Your task to perform on an android device: What's the news in theFalkland Islands? Image 0: 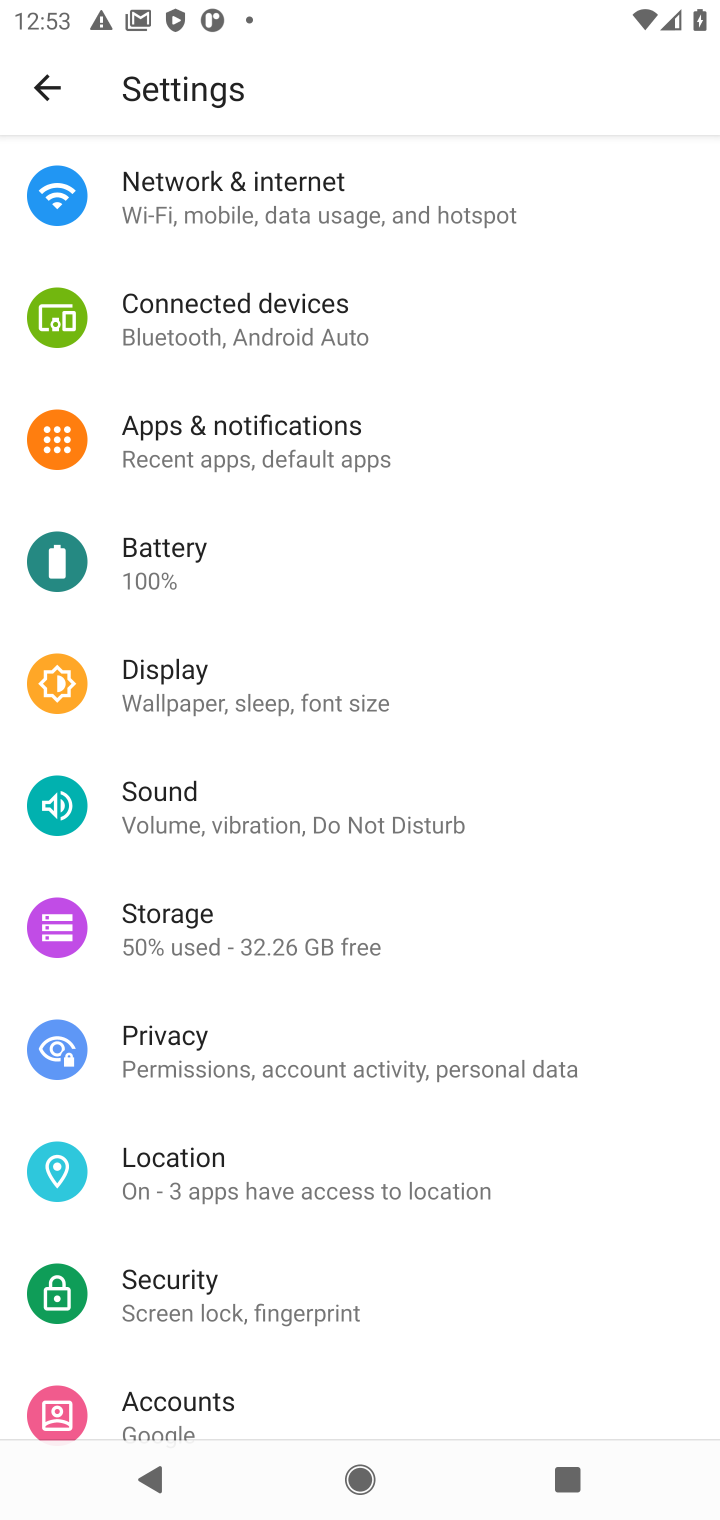
Step 0: press home button
Your task to perform on an android device: What's the news in theFalkland Islands? Image 1: 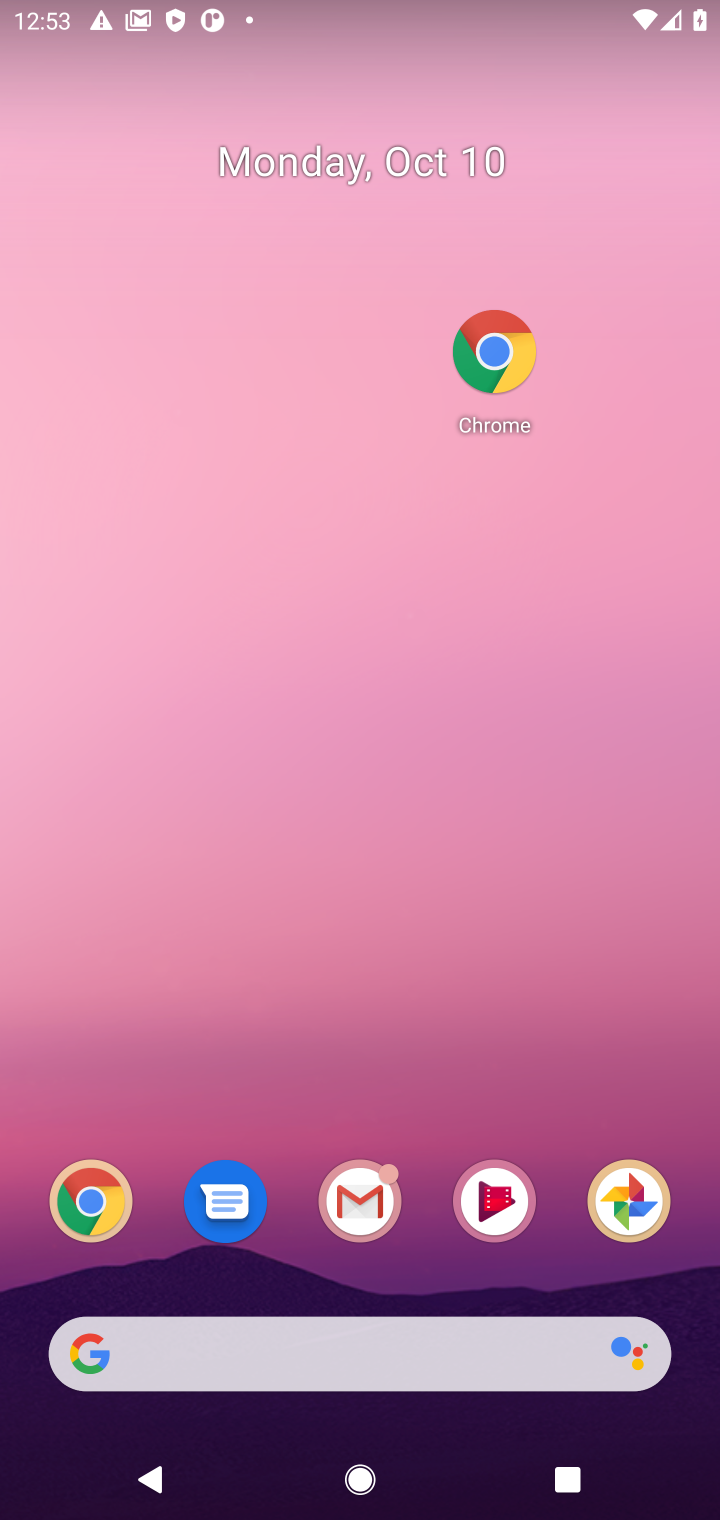
Step 1: click (489, 362)
Your task to perform on an android device: What's the news in theFalkland Islands? Image 2: 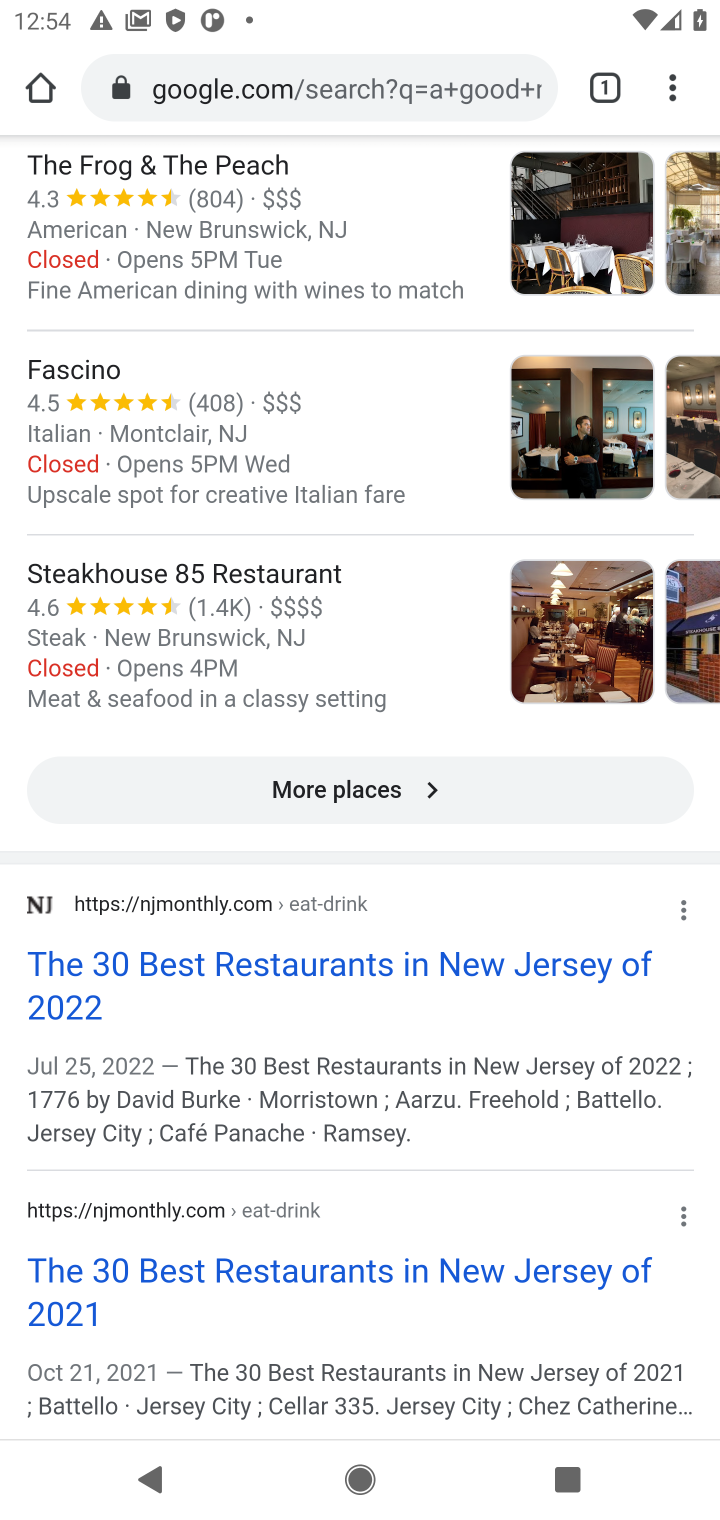
Step 2: click (339, 87)
Your task to perform on an android device: What's the news in theFalkland Islands? Image 3: 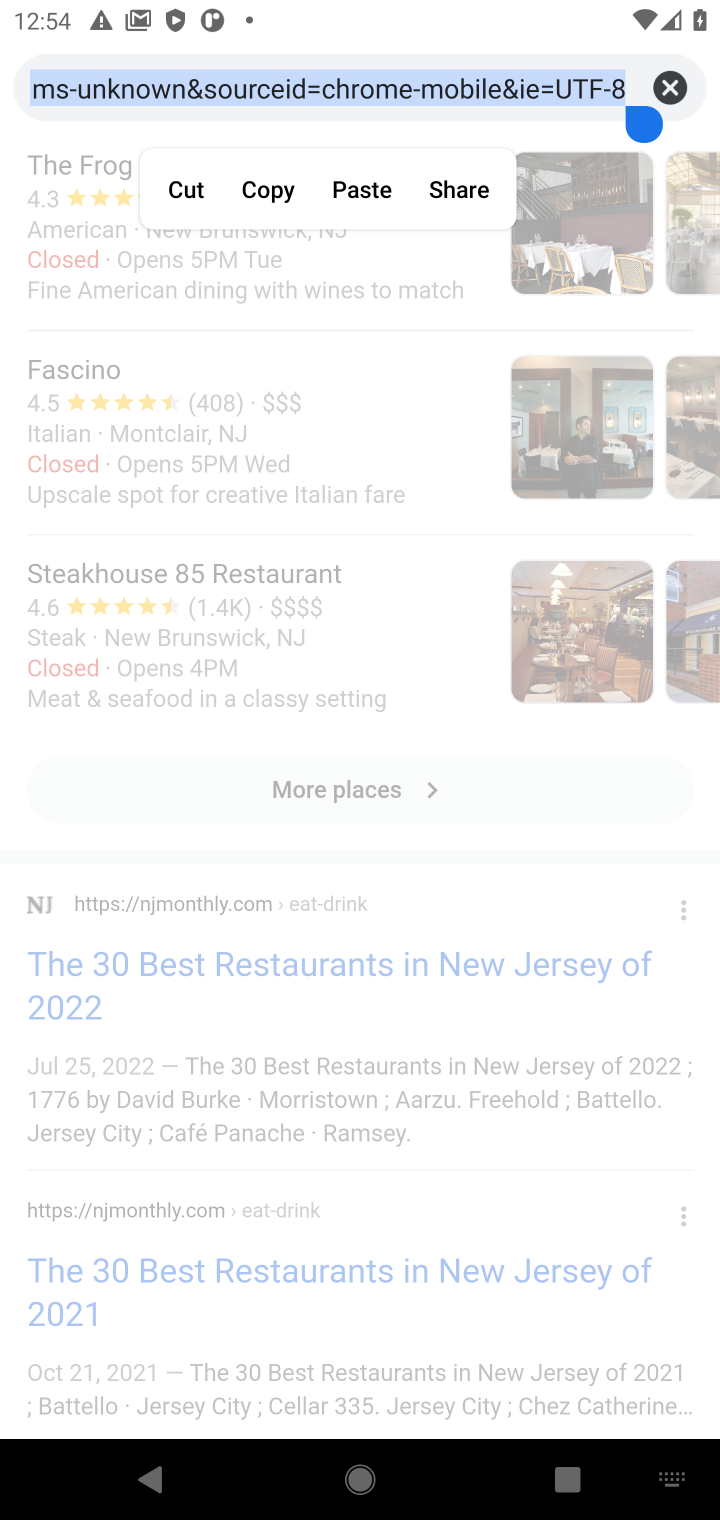
Step 3: click (658, 94)
Your task to perform on an android device: What's the news in theFalkland Islands? Image 4: 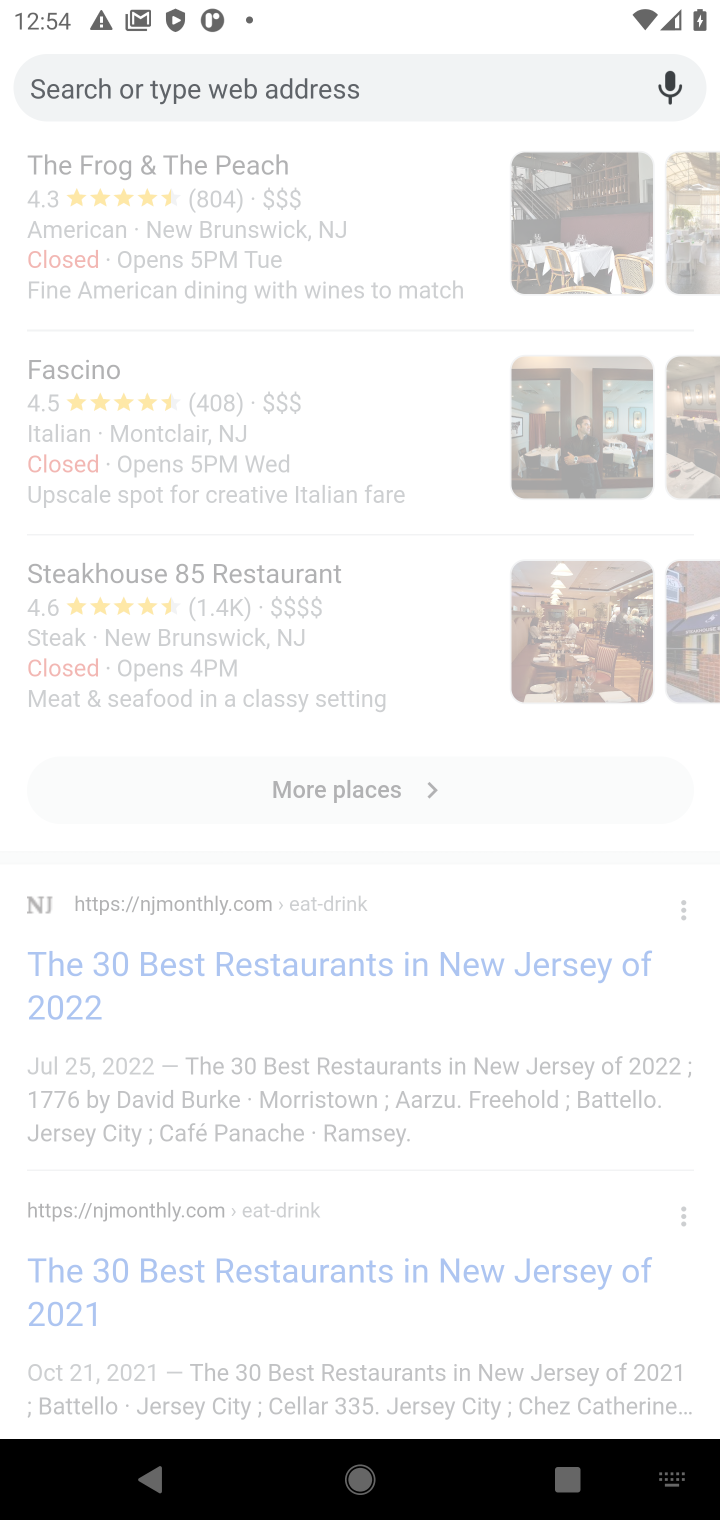
Step 4: type "What's the news in theFalkland Islands?"
Your task to perform on an android device: What's the news in theFalkland Islands? Image 5: 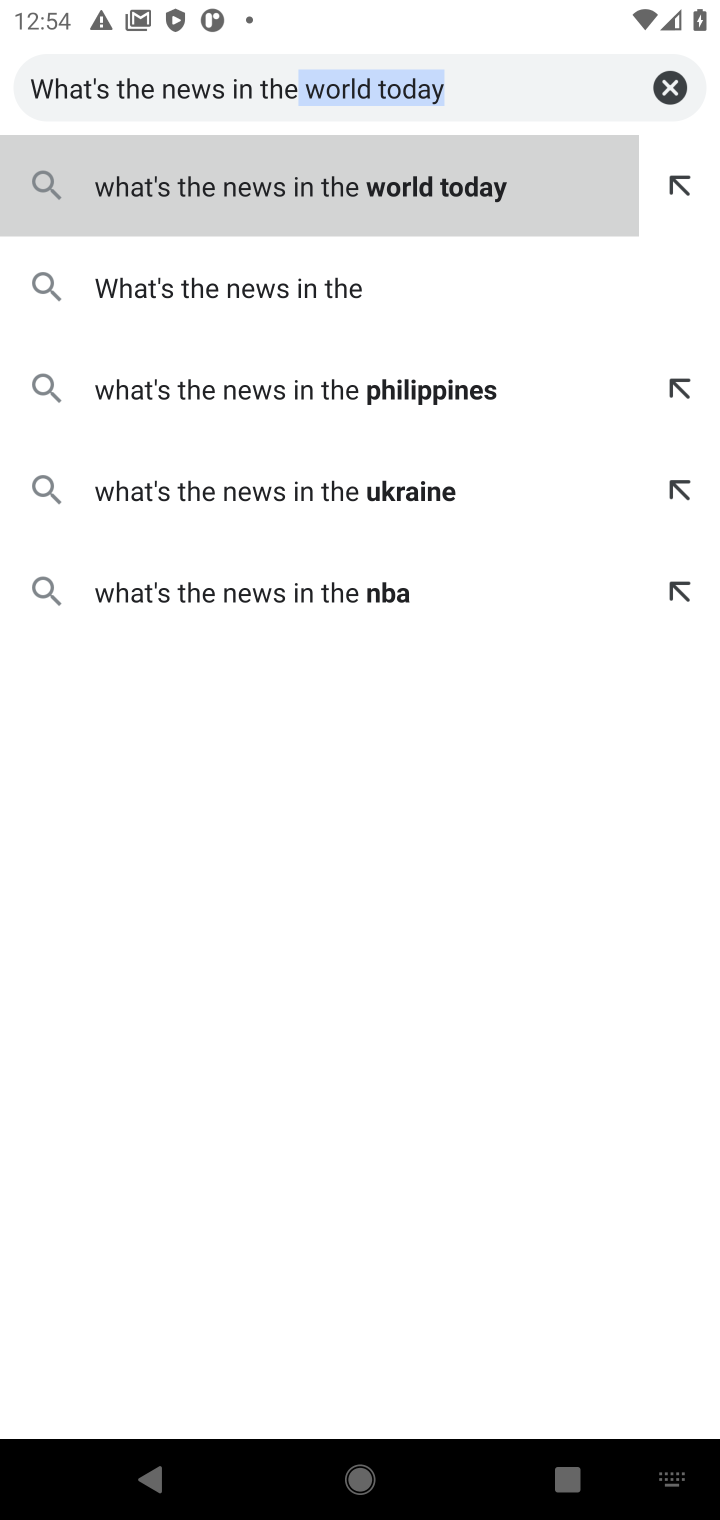
Step 5: click (295, 90)
Your task to perform on an android device: What's the news in theFalkland Islands? Image 6: 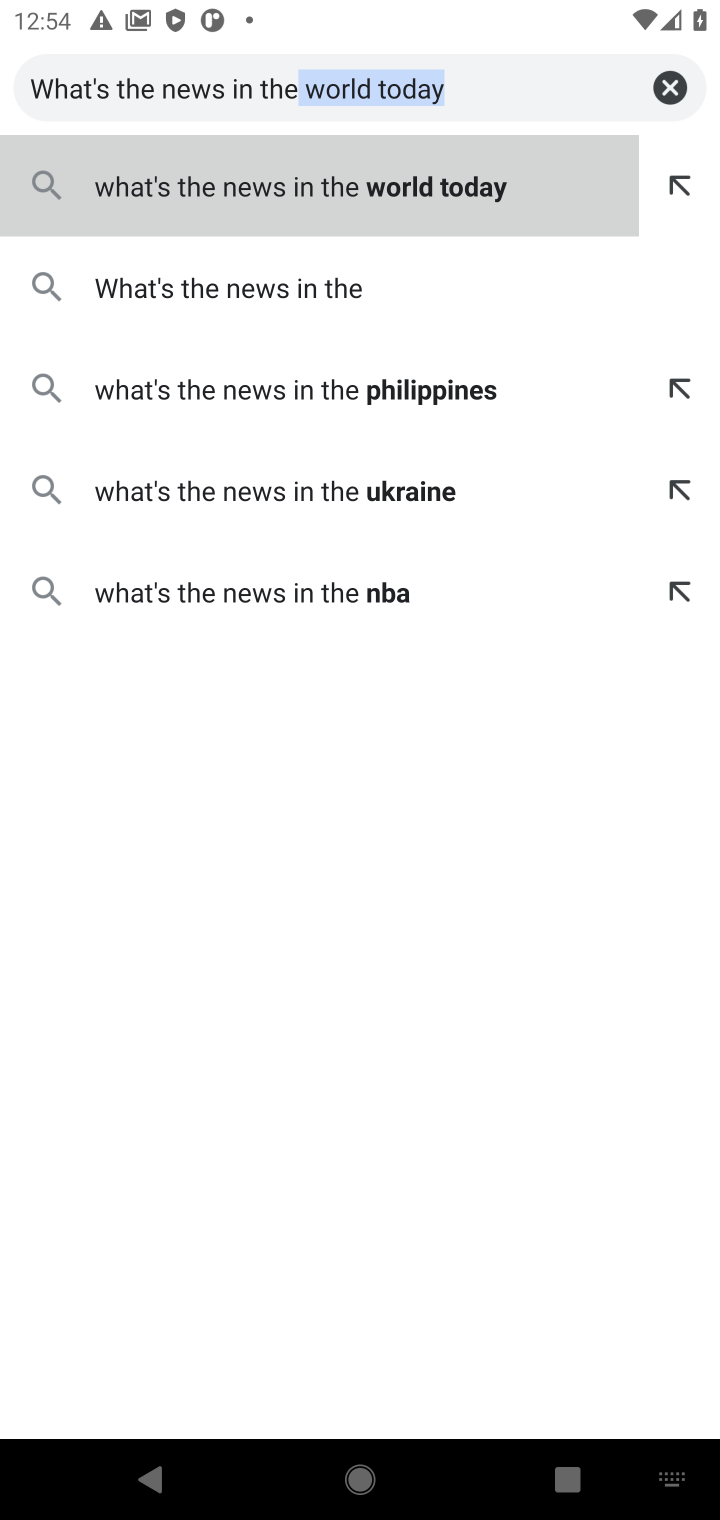
Step 6: click (295, 90)
Your task to perform on an android device: What's the news in theFalkland Islands? Image 7: 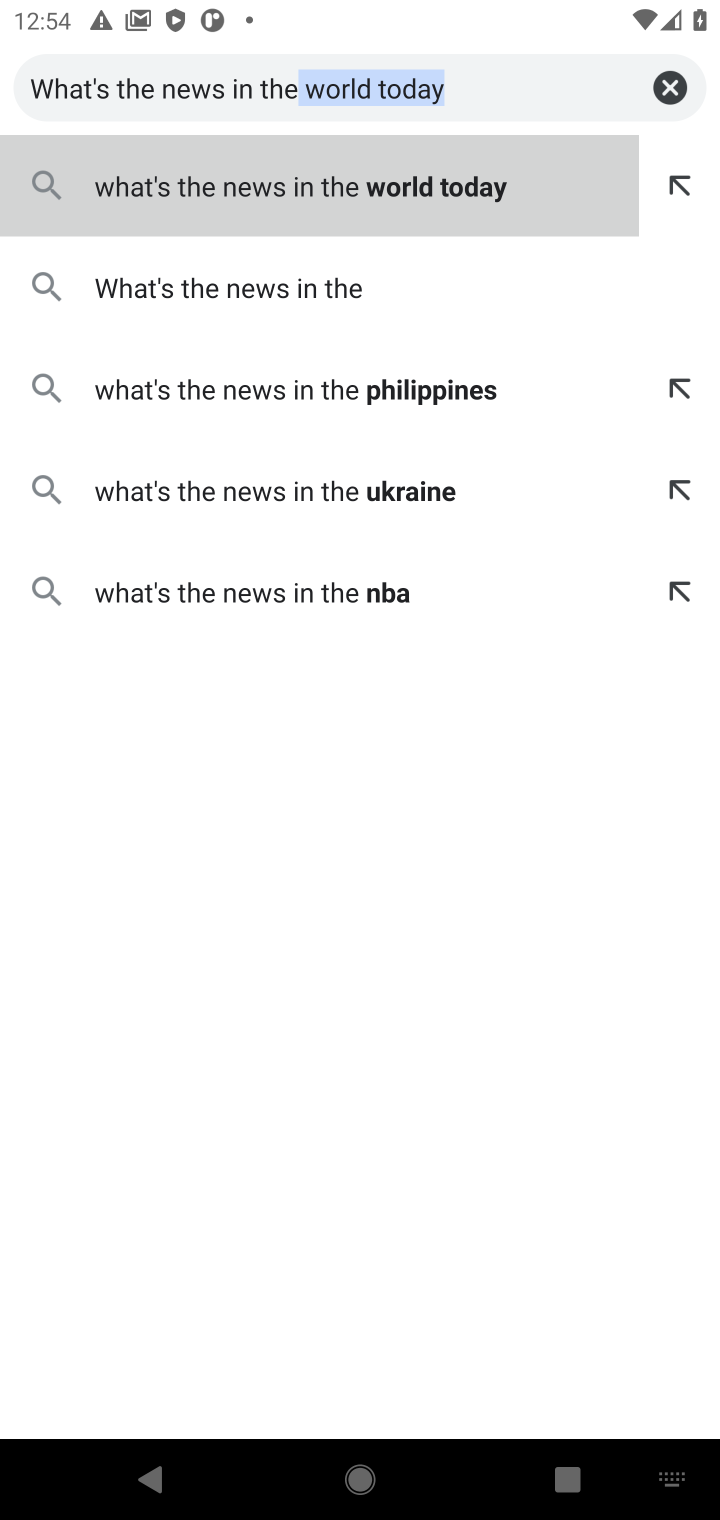
Step 7: click (298, 98)
Your task to perform on an android device: What's the news in theFalkland Islands? Image 8: 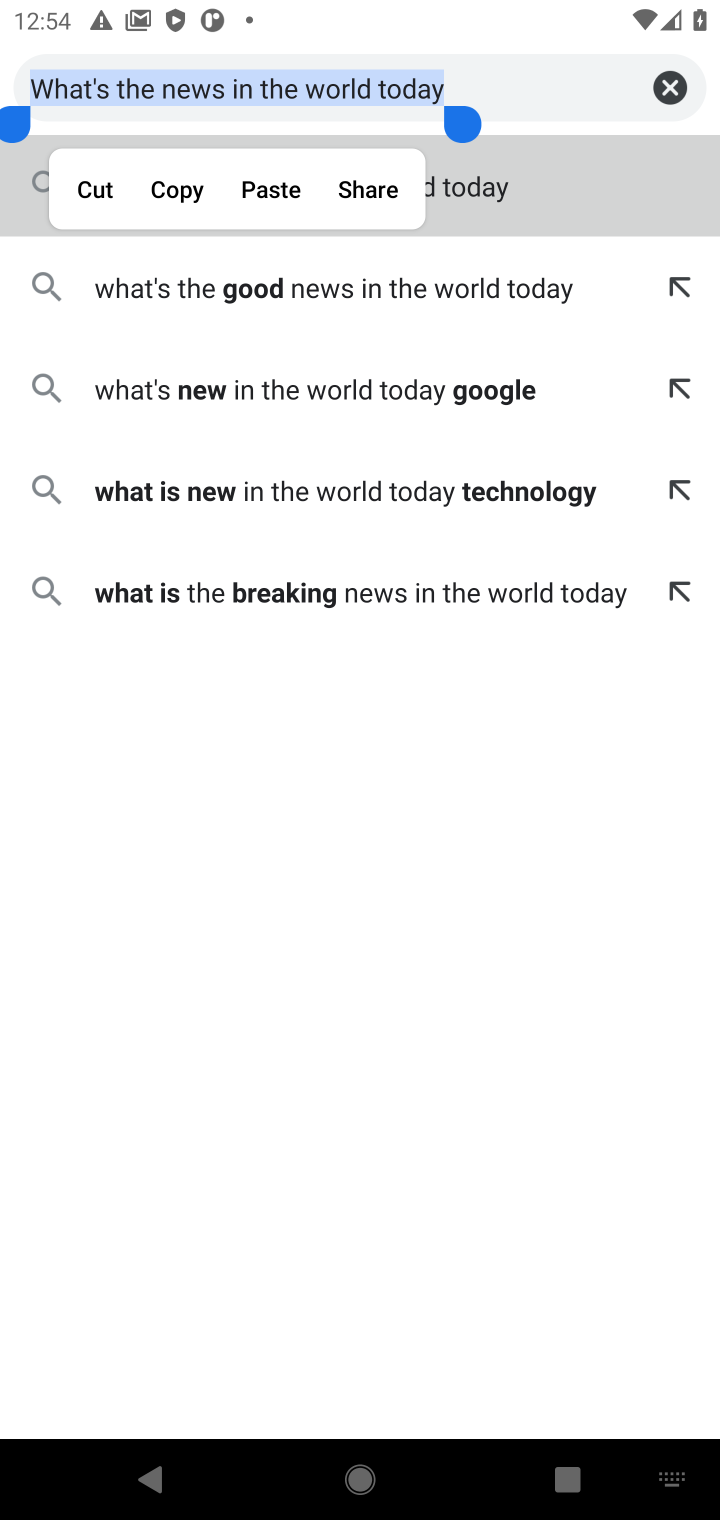
Step 8: click (298, 98)
Your task to perform on an android device: What's the news in theFalkland Islands? Image 9: 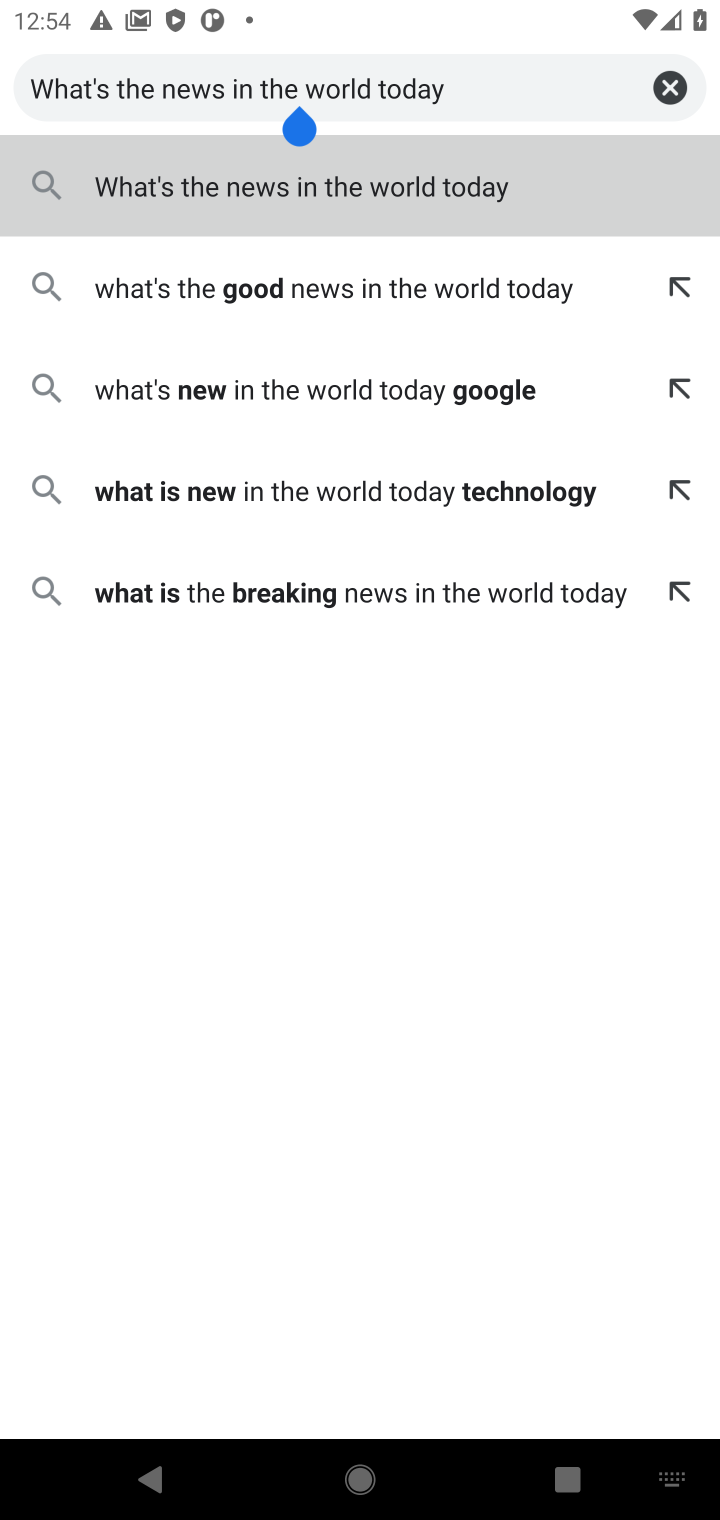
Step 9: click (298, 98)
Your task to perform on an android device: What's the news in theFalkland Islands? Image 10: 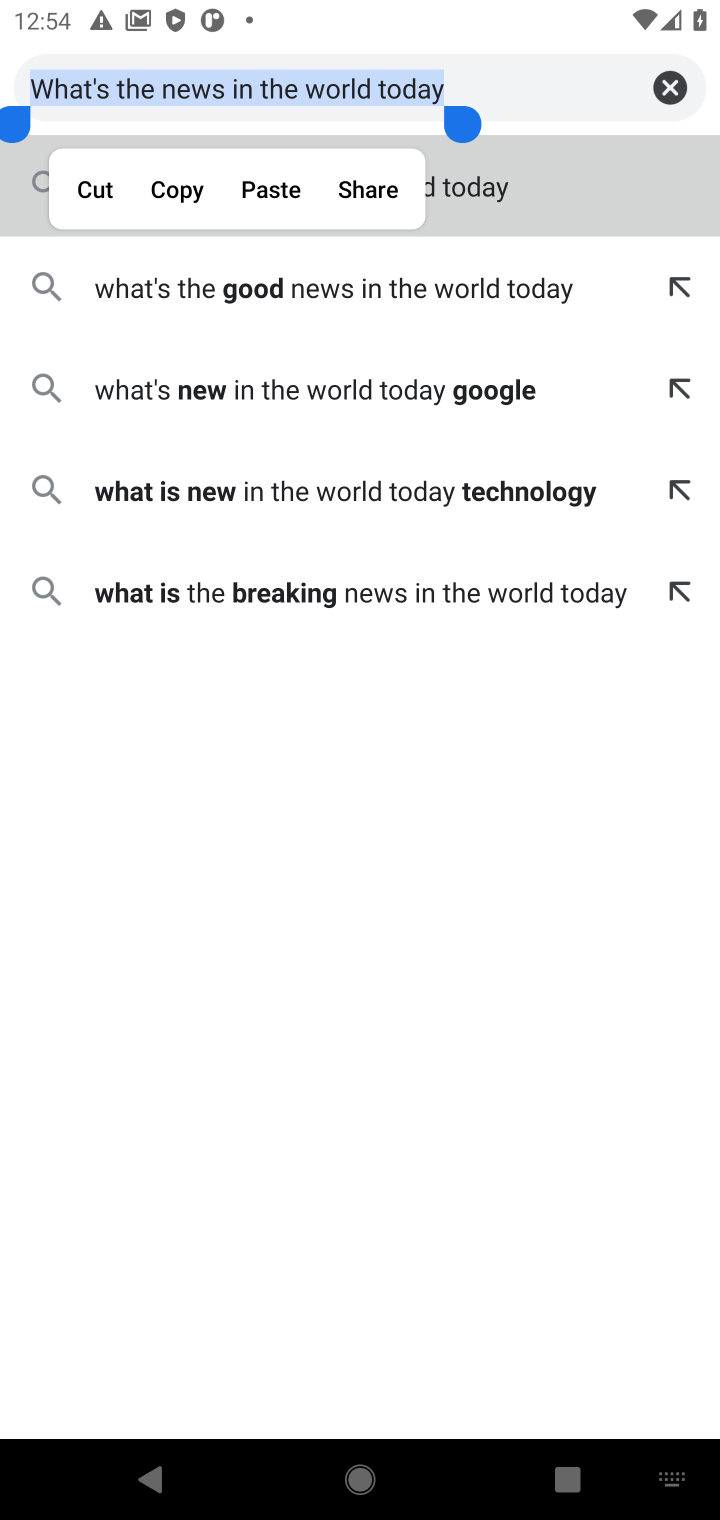
Step 10: click (337, 96)
Your task to perform on an android device: What's the news in theFalkland Islands? Image 11: 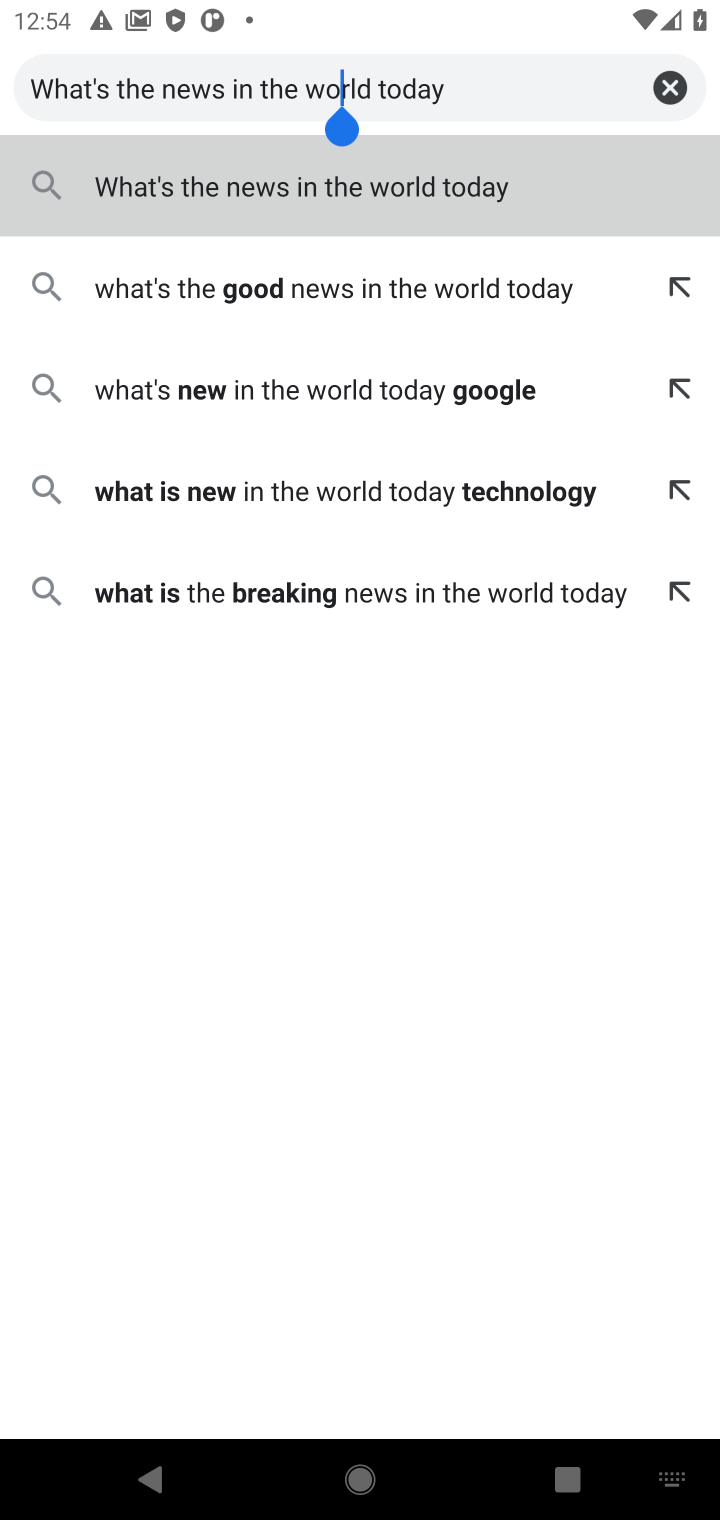
Step 11: drag from (435, 91) to (318, 93)
Your task to perform on an android device: What's the news in theFalkland Islands? Image 12: 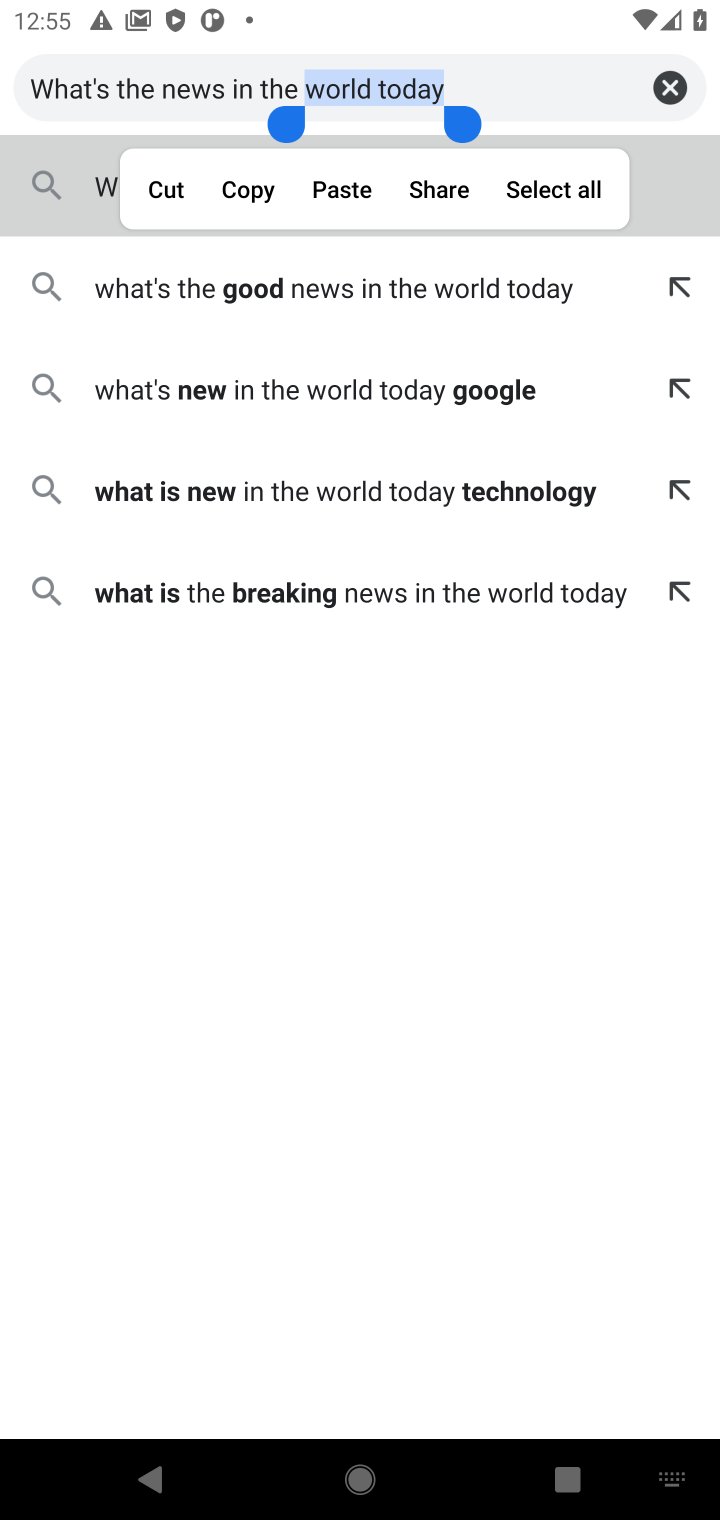
Step 12: click (175, 193)
Your task to perform on an android device: What's the news in theFalkland Islands? Image 13: 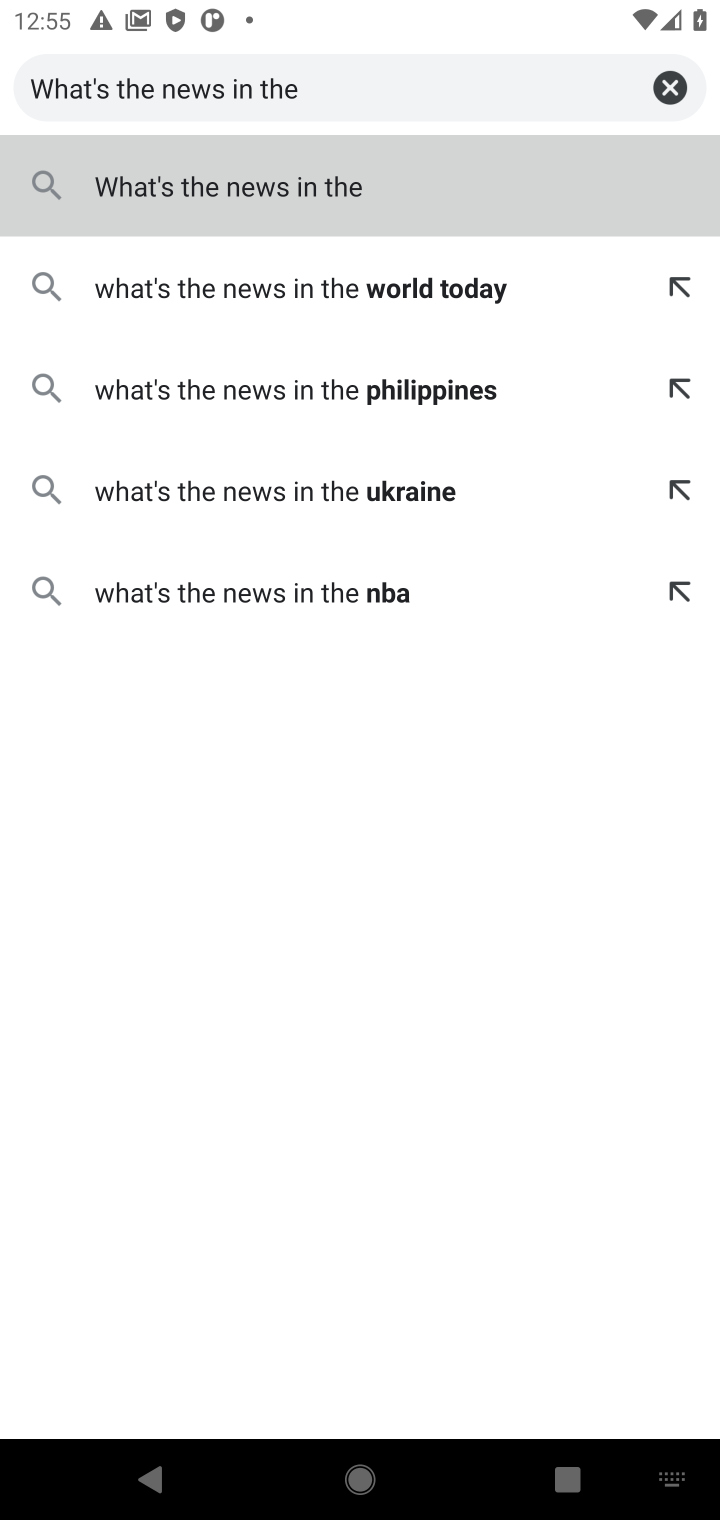
Step 13: click (341, 87)
Your task to perform on an android device: What's the news in theFalkland Islands? Image 14: 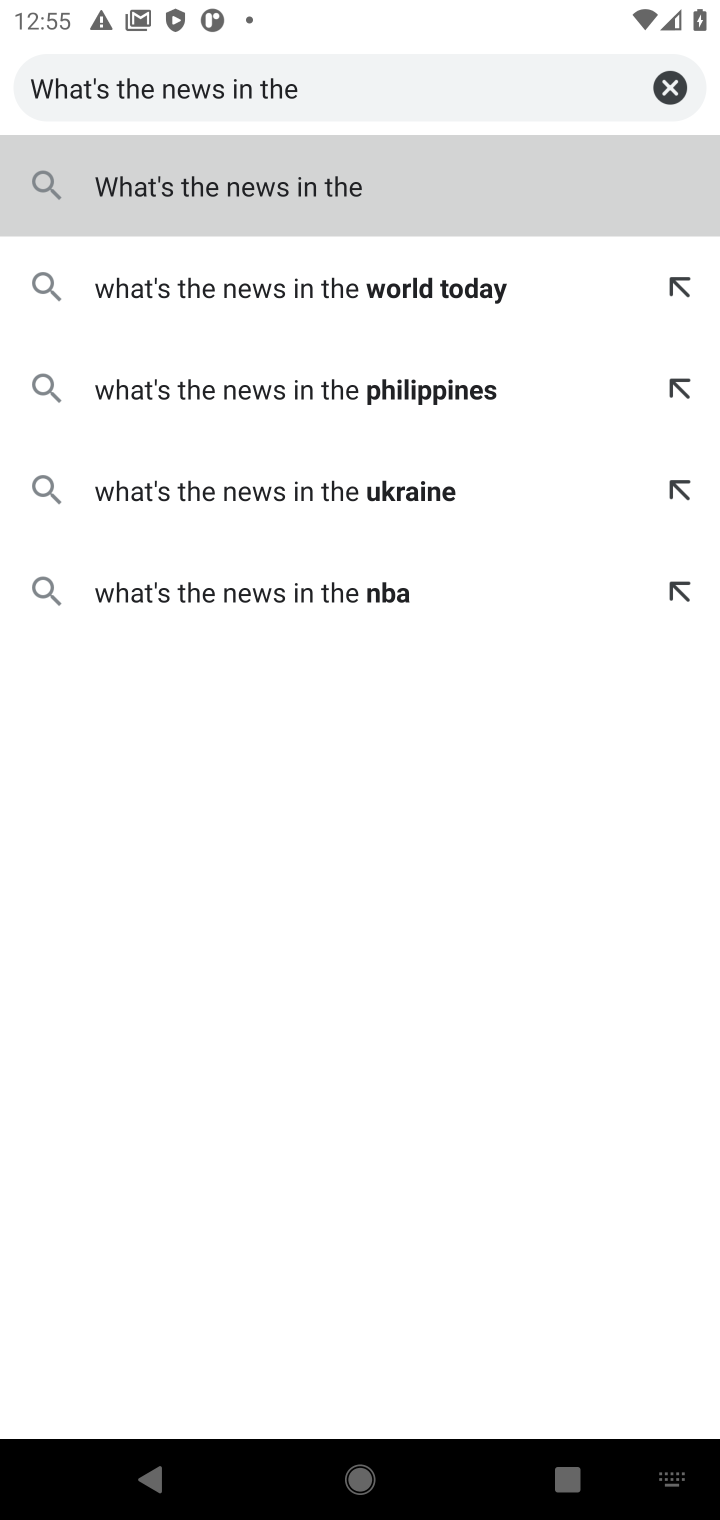
Step 14: type "Falkland Islands?"
Your task to perform on an android device: What's the news in theFalkland Islands? Image 15: 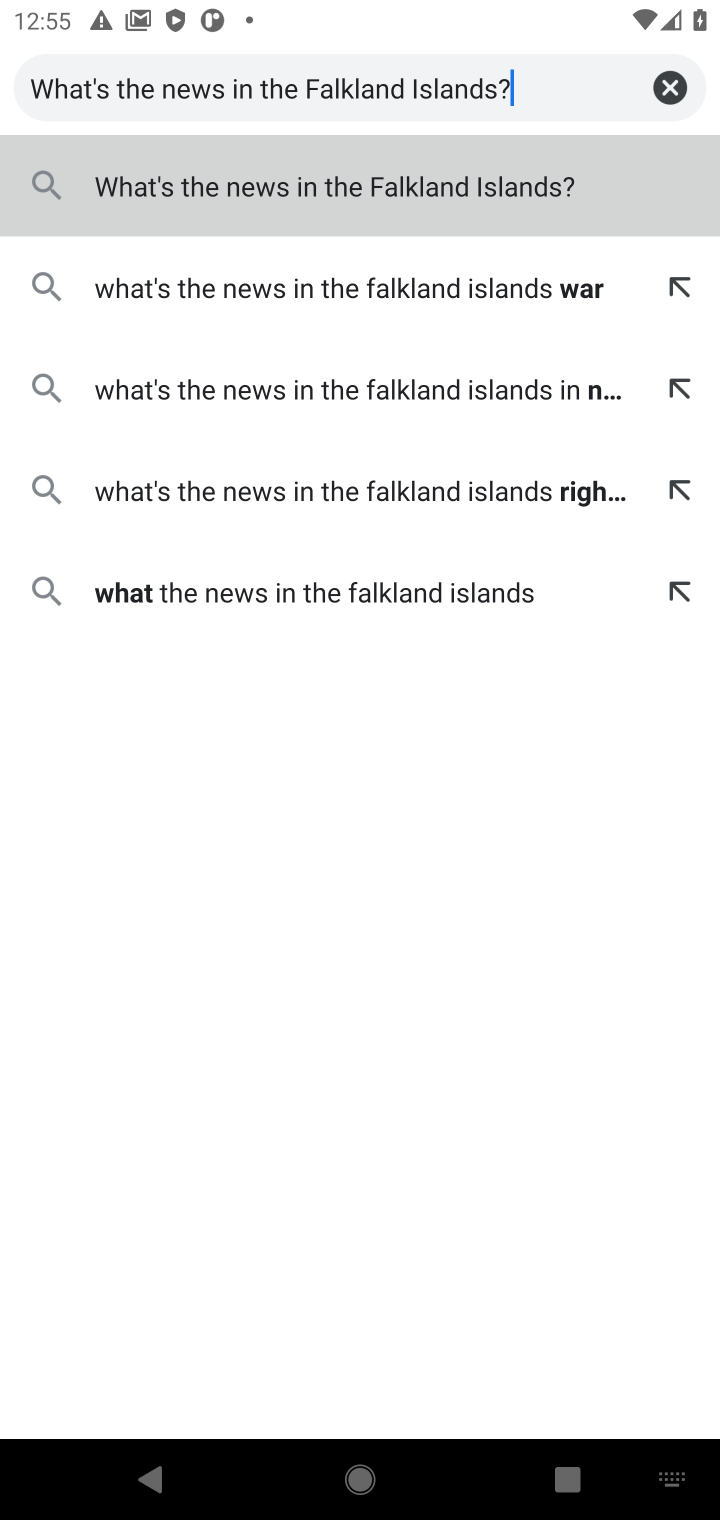
Step 15: click (466, 199)
Your task to perform on an android device: What's the news in theFalkland Islands? Image 16: 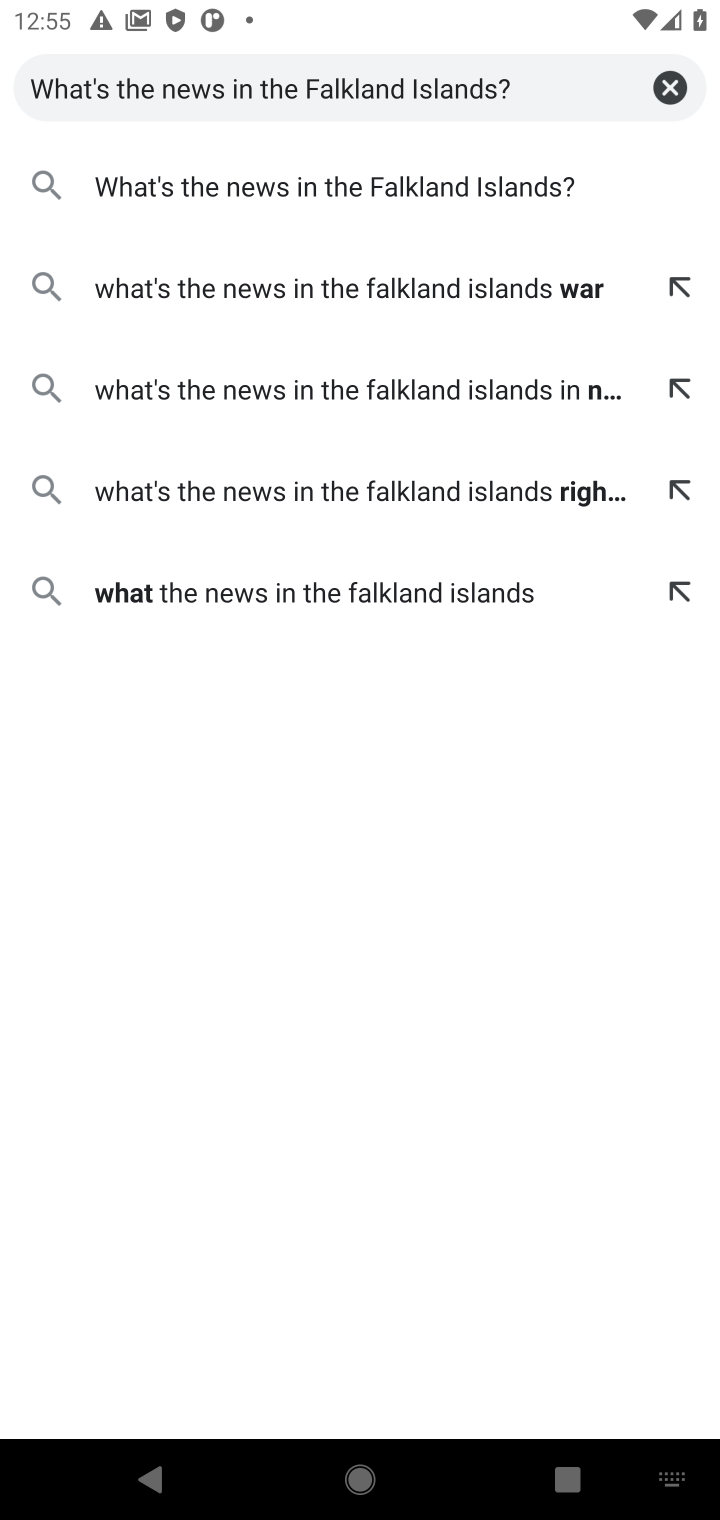
Step 16: click (447, 199)
Your task to perform on an android device: What's the news in theFalkland Islands? Image 17: 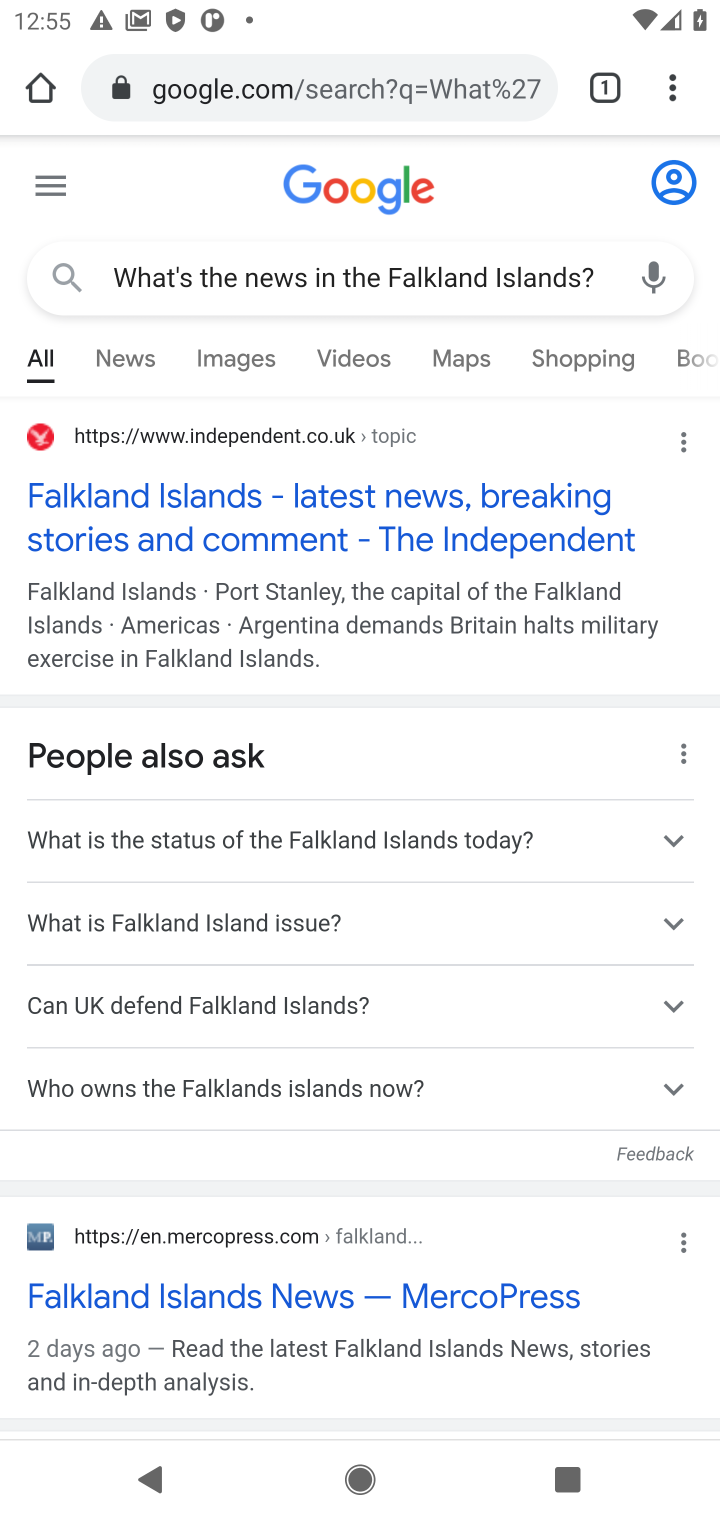
Step 17: click (157, 534)
Your task to perform on an android device: What's the news in theFalkland Islands? Image 18: 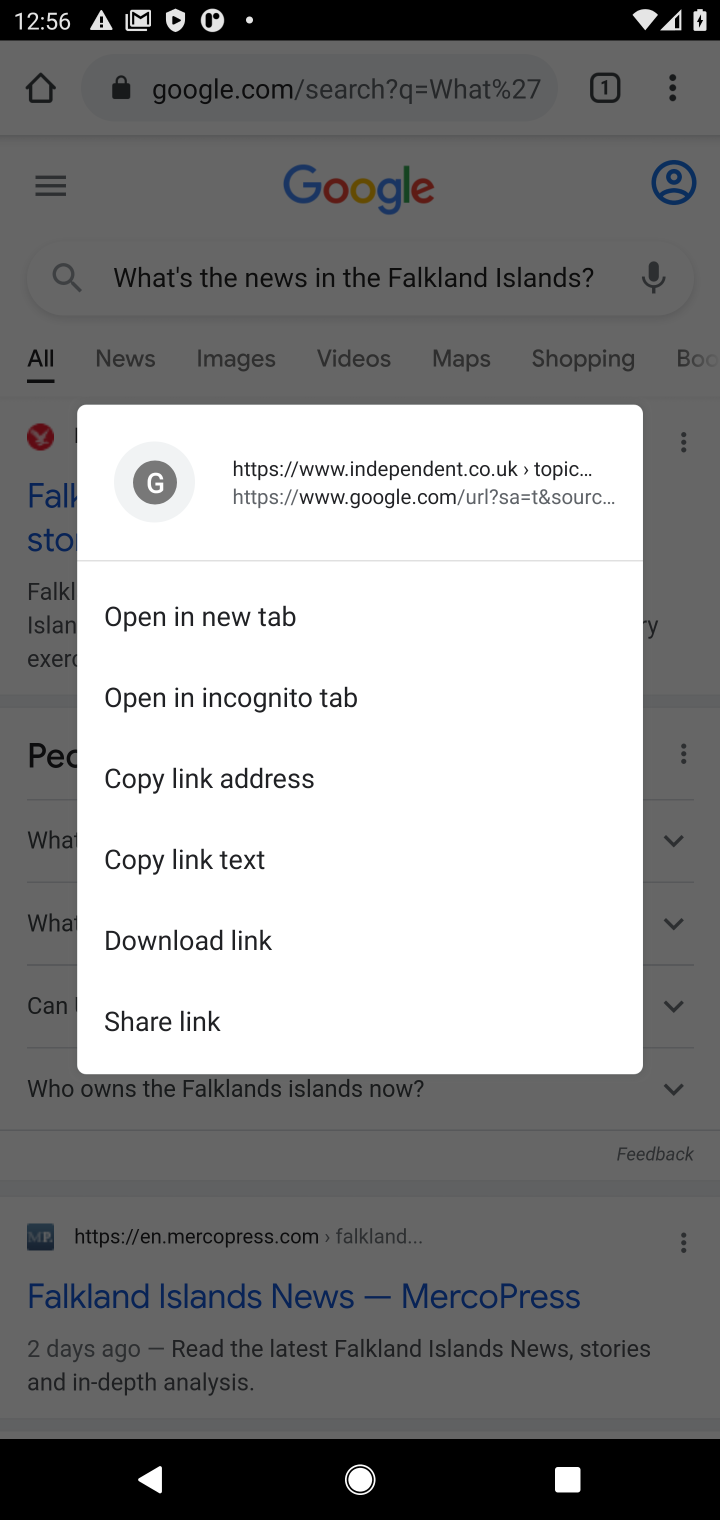
Step 18: click (37, 522)
Your task to perform on an android device: What's the news in theFalkland Islands? Image 19: 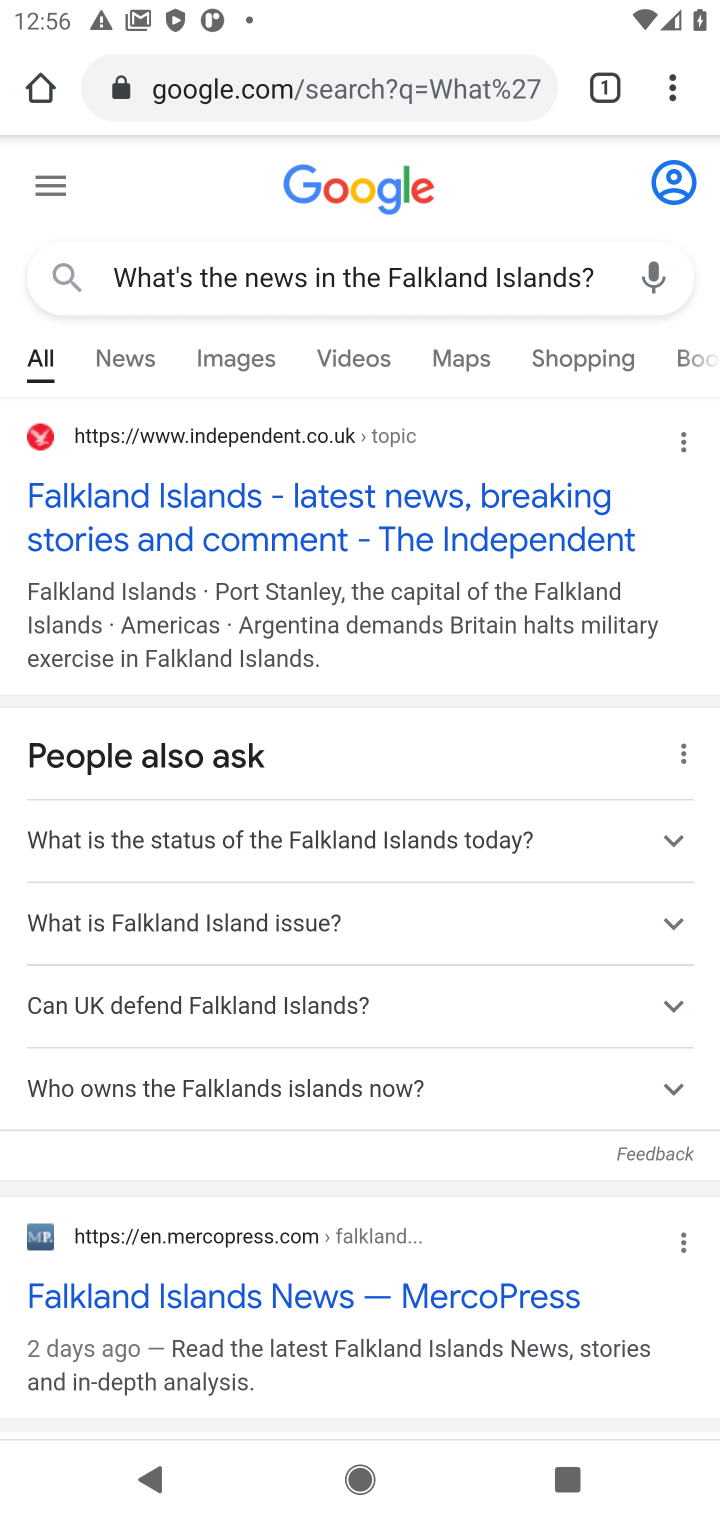
Step 19: click (108, 538)
Your task to perform on an android device: What's the news in theFalkland Islands? Image 20: 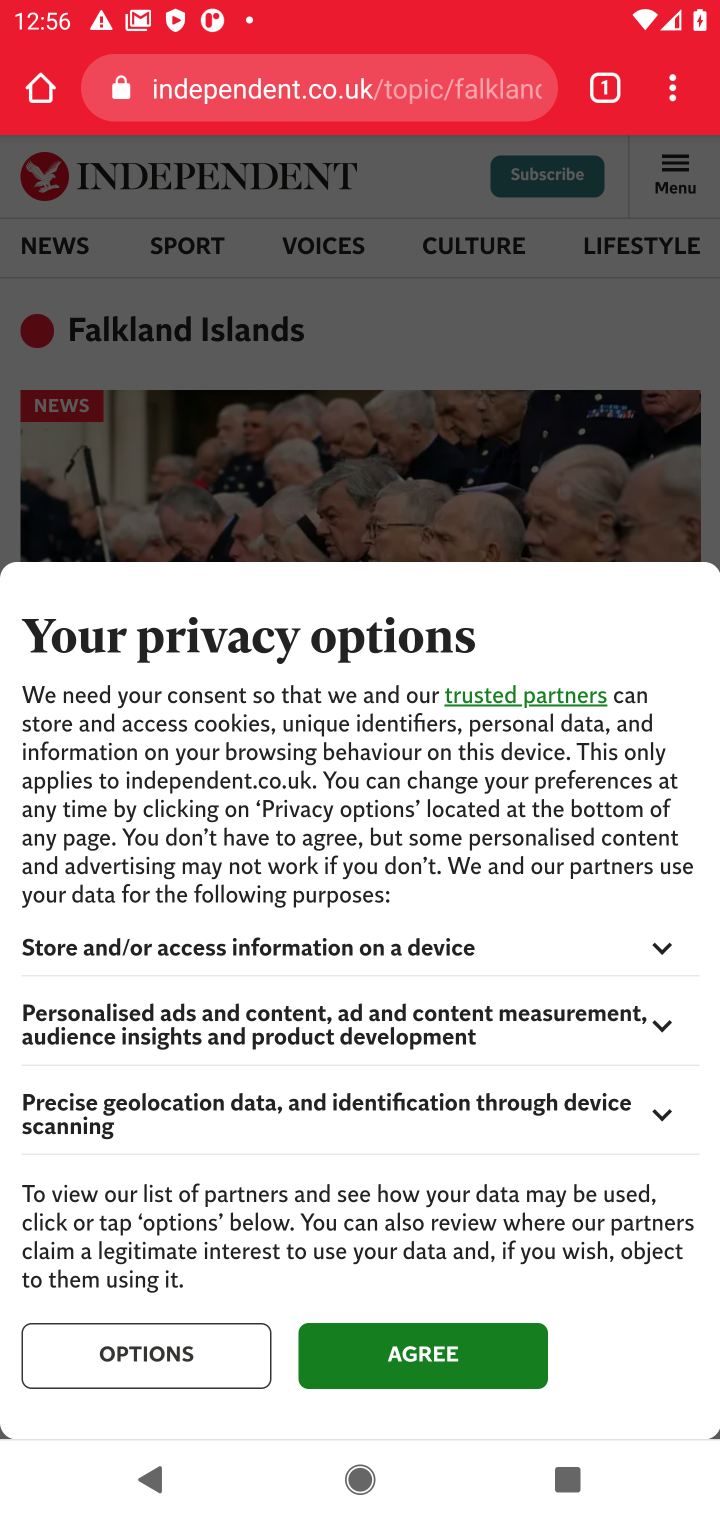
Step 20: drag from (432, 456) to (423, 257)
Your task to perform on an android device: What's the news in theFalkland Islands? Image 21: 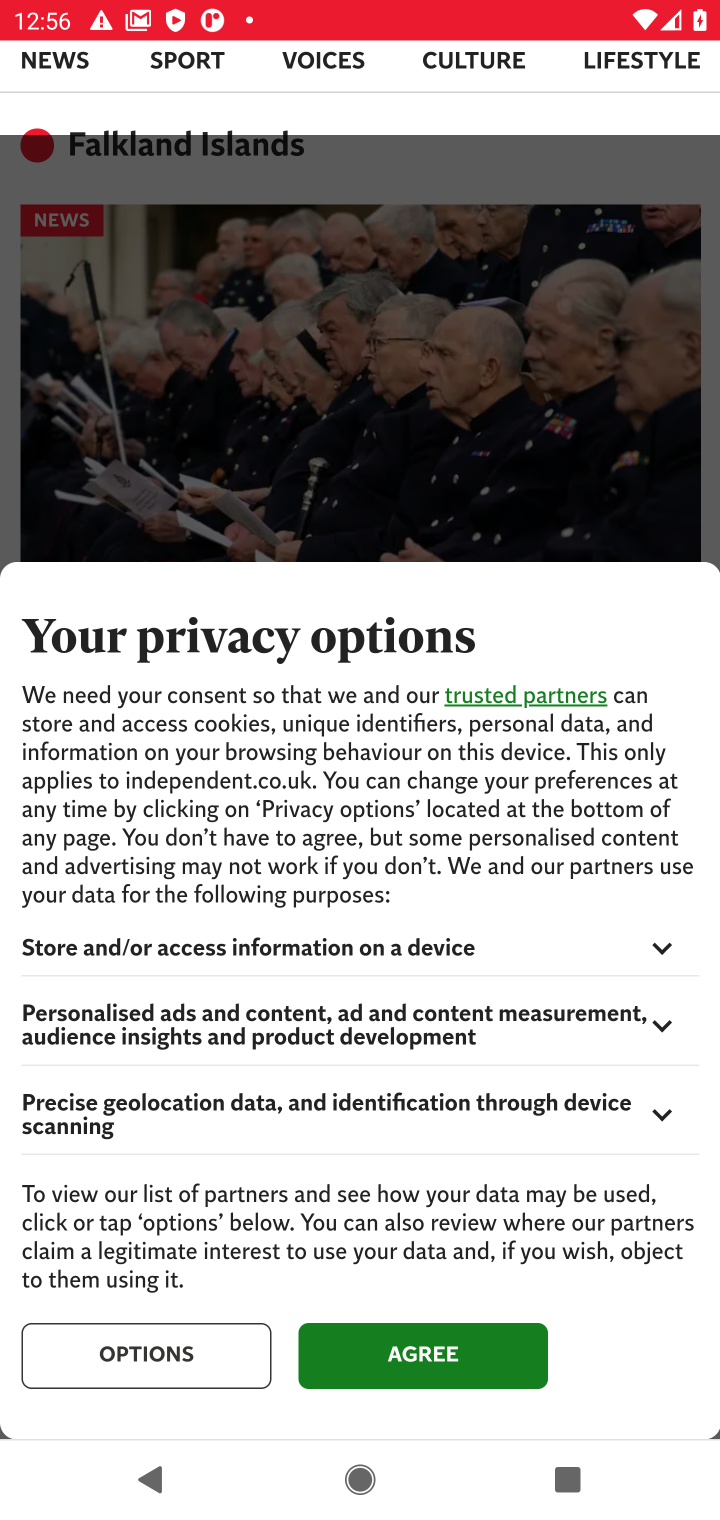
Step 21: drag from (388, 409) to (388, 168)
Your task to perform on an android device: What's the news in theFalkland Islands? Image 22: 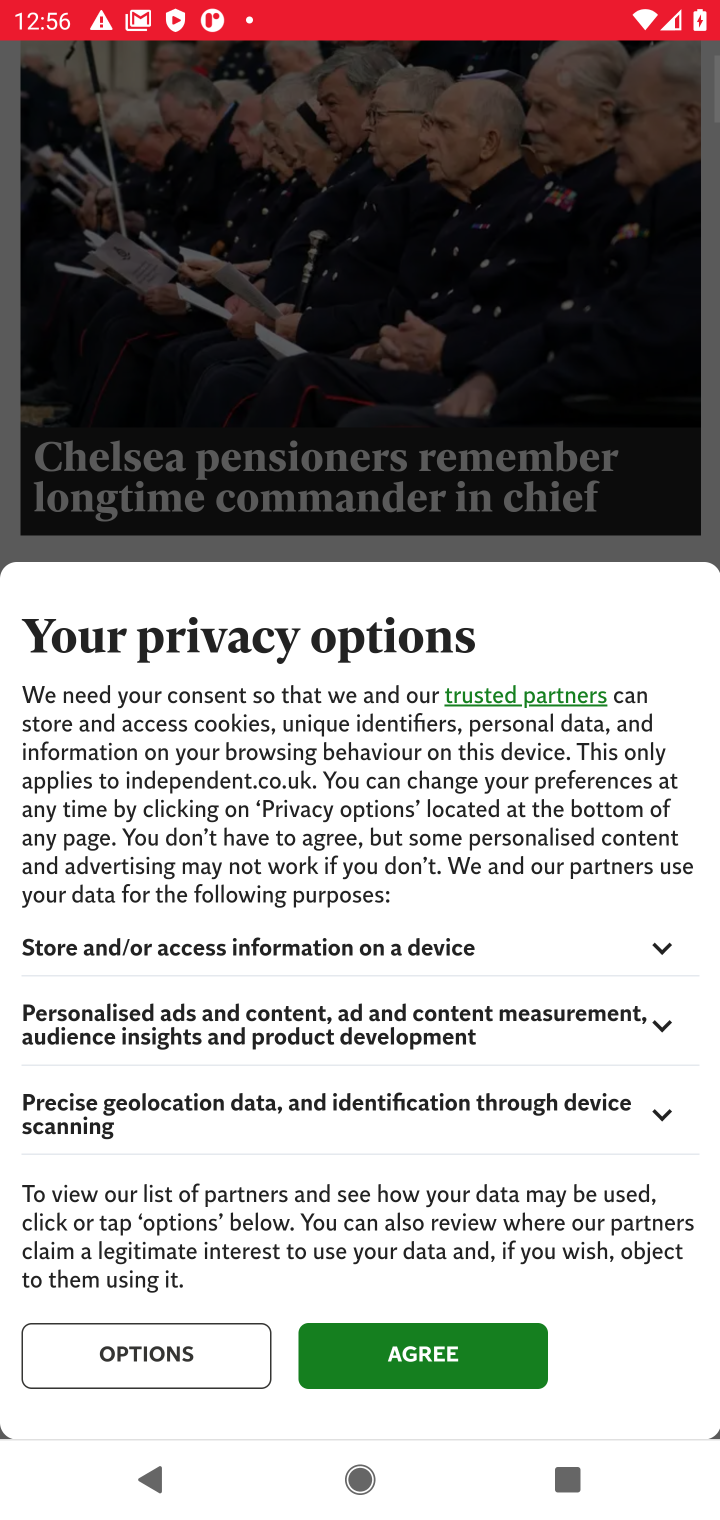
Step 22: drag from (401, 469) to (403, 135)
Your task to perform on an android device: What's the news in theFalkland Islands? Image 23: 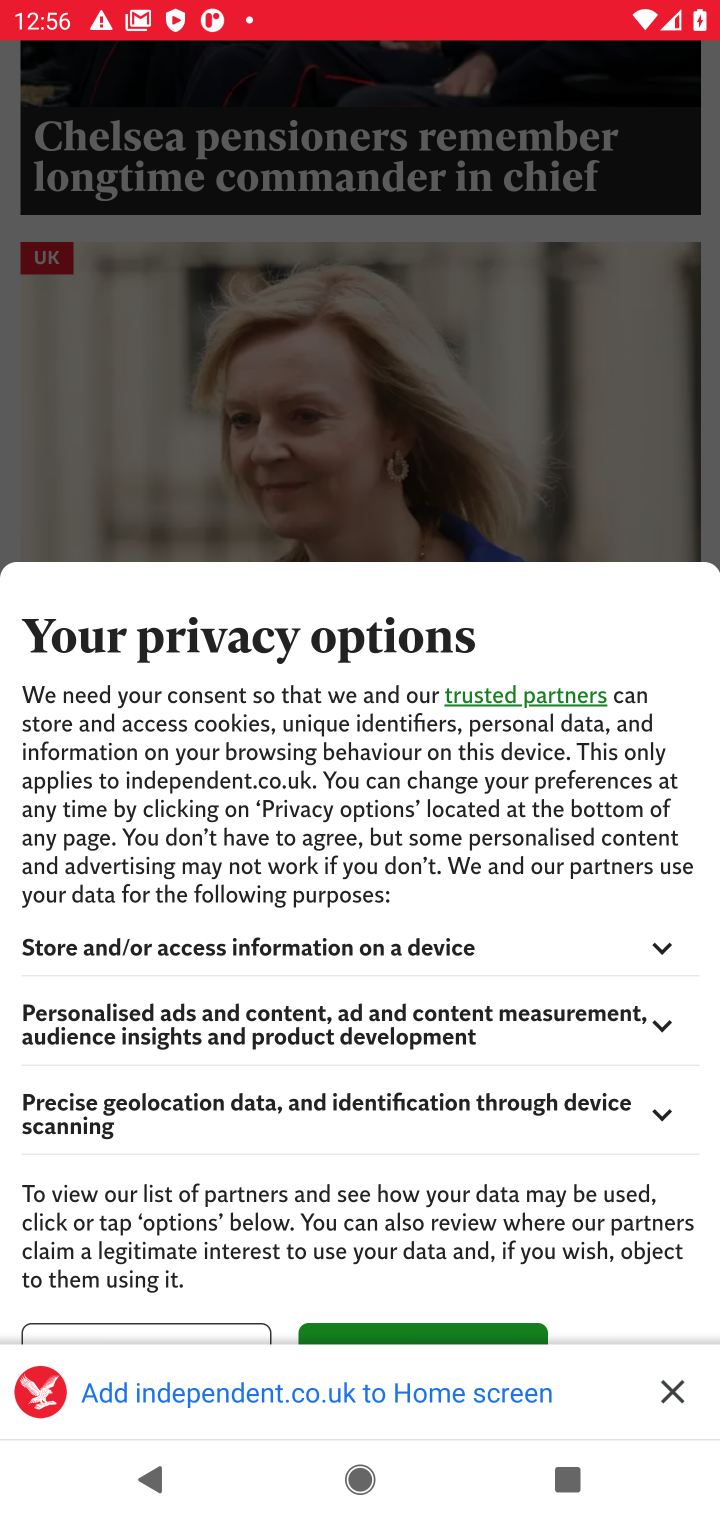
Step 23: click (669, 1388)
Your task to perform on an android device: What's the news in theFalkland Islands? Image 24: 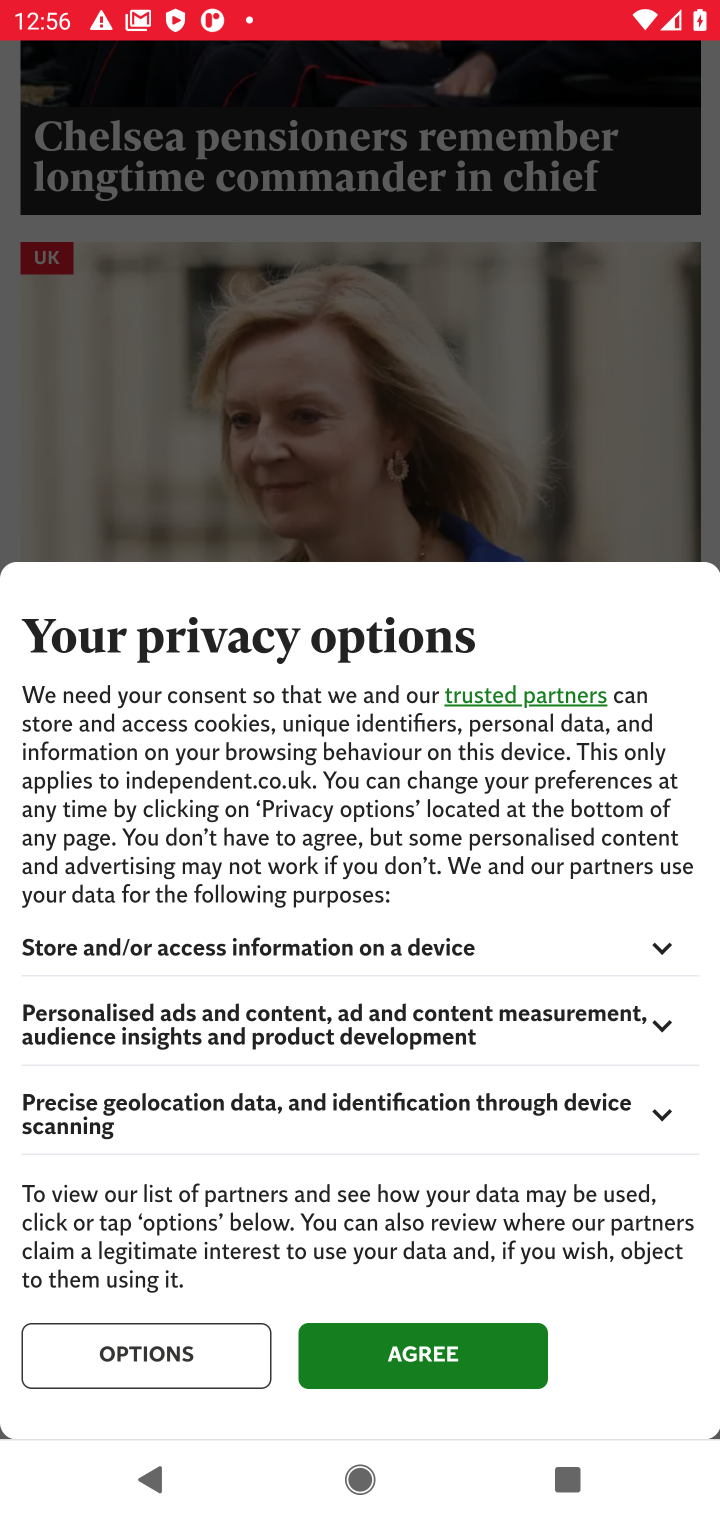
Step 24: task complete